Your task to perform on an android device: Go to Yahoo.com Image 0: 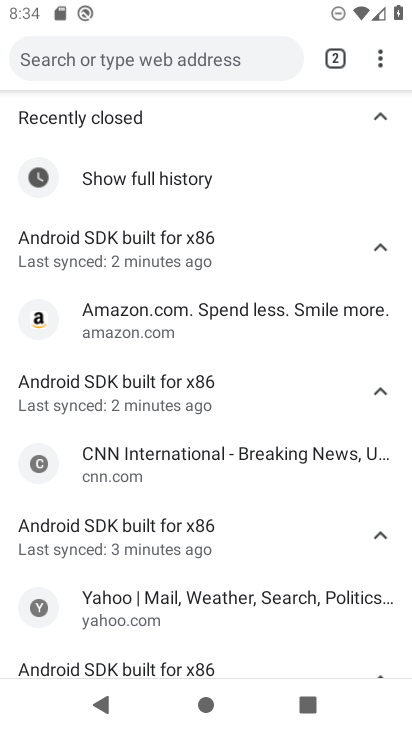
Step 0: press home button
Your task to perform on an android device: Go to Yahoo.com Image 1: 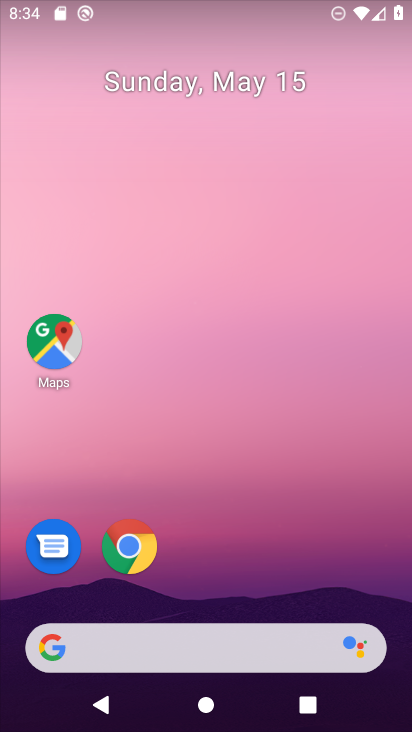
Step 1: click (249, 640)
Your task to perform on an android device: Go to Yahoo.com Image 2: 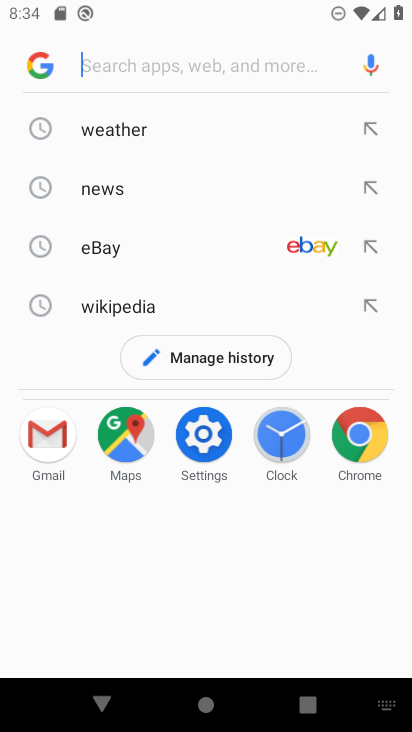
Step 2: type "yahoo.com"
Your task to perform on an android device: Go to Yahoo.com Image 3: 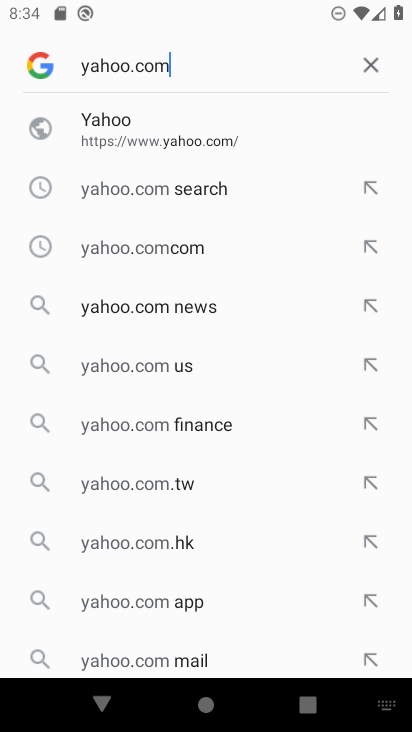
Step 3: click (95, 124)
Your task to perform on an android device: Go to Yahoo.com Image 4: 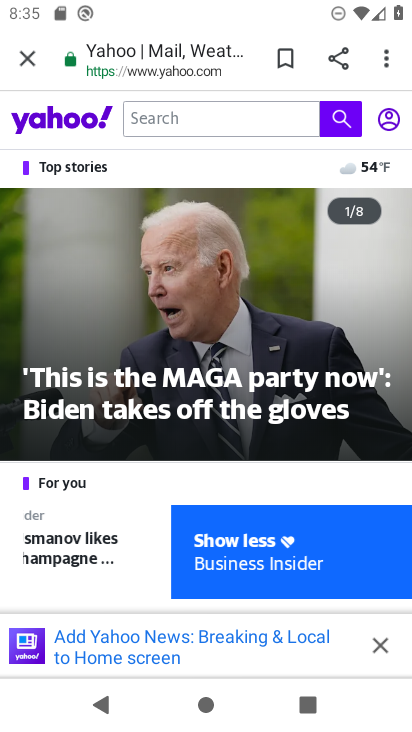
Step 4: task complete